Your task to perform on an android device: Open Maps and search for coffee Image 0: 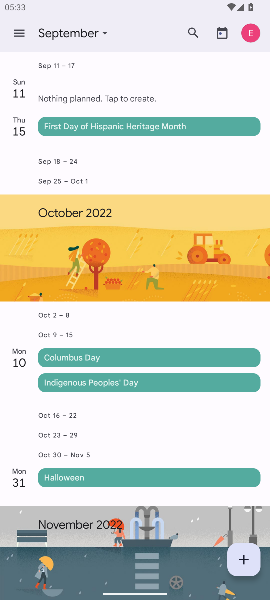
Step 0: press home button
Your task to perform on an android device: Open Maps and search for coffee Image 1: 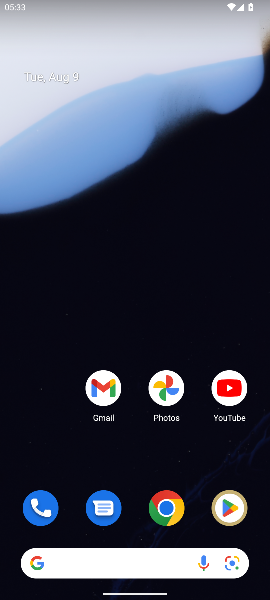
Step 1: drag from (130, 474) to (245, 224)
Your task to perform on an android device: Open Maps and search for coffee Image 2: 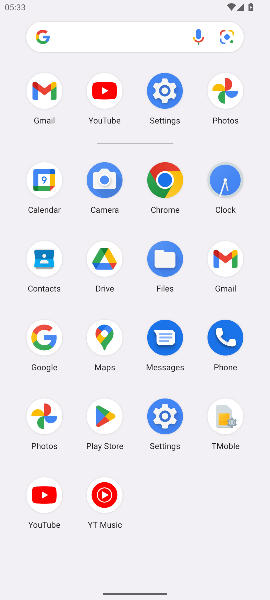
Step 2: click (107, 331)
Your task to perform on an android device: Open Maps and search for coffee Image 3: 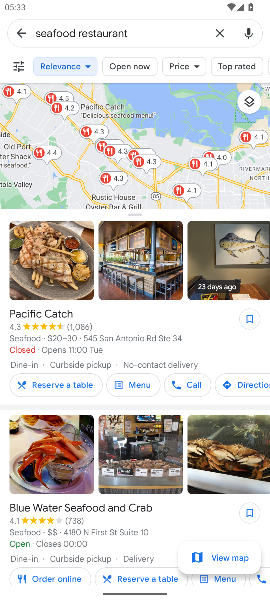
Step 3: click (216, 29)
Your task to perform on an android device: Open Maps and search for coffee Image 4: 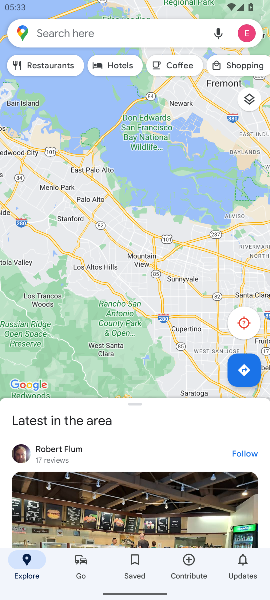
Step 4: click (76, 28)
Your task to perform on an android device: Open Maps and search for coffee Image 5: 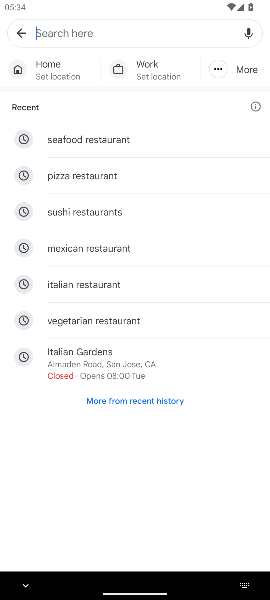
Step 5: type "coffee"
Your task to perform on an android device: Open Maps and search for coffee Image 6: 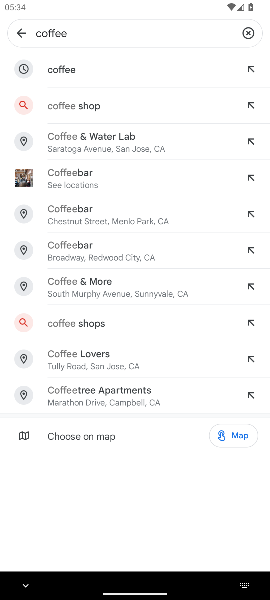
Step 6: click (101, 72)
Your task to perform on an android device: Open Maps and search for coffee Image 7: 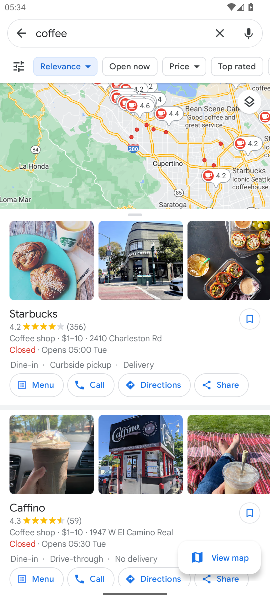
Step 7: task complete